Your task to perform on an android device: Open accessibility settings Image 0: 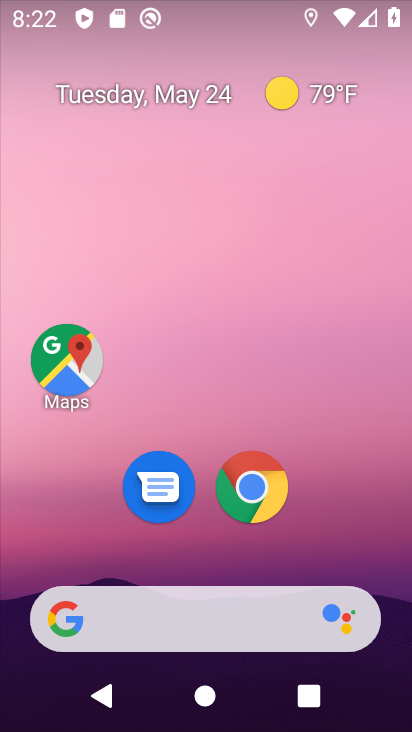
Step 0: drag from (302, 547) to (298, 115)
Your task to perform on an android device: Open accessibility settings Image 1: 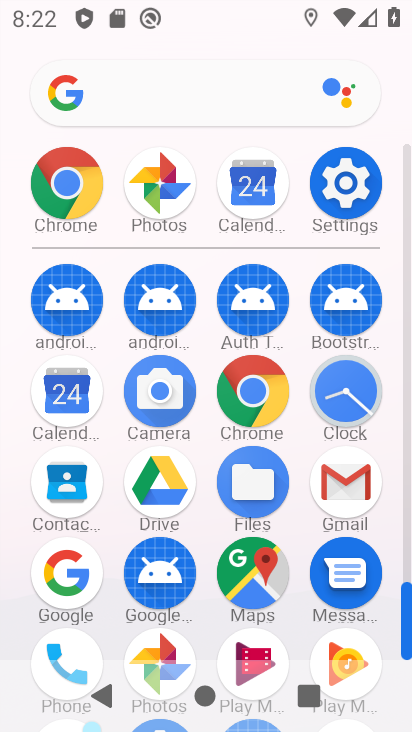
Step 1: click (333, 198)
Your task to perform on an android device: Open accessibility settings Image 2: 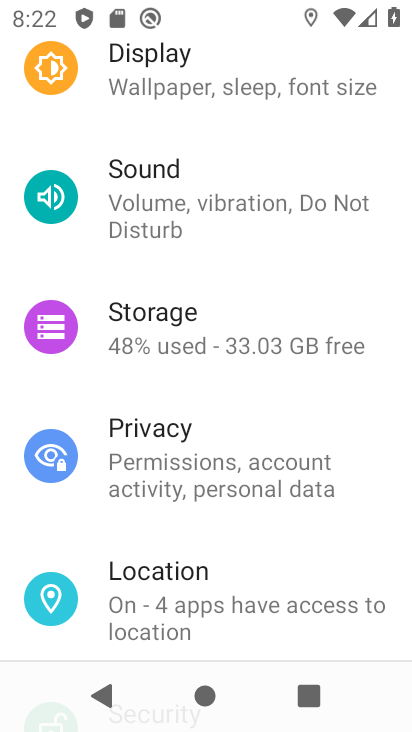
Step 2: drag from (315, 562) to (322, 195)
Your task to perform on an android device: Open accessibility settings Image 3: 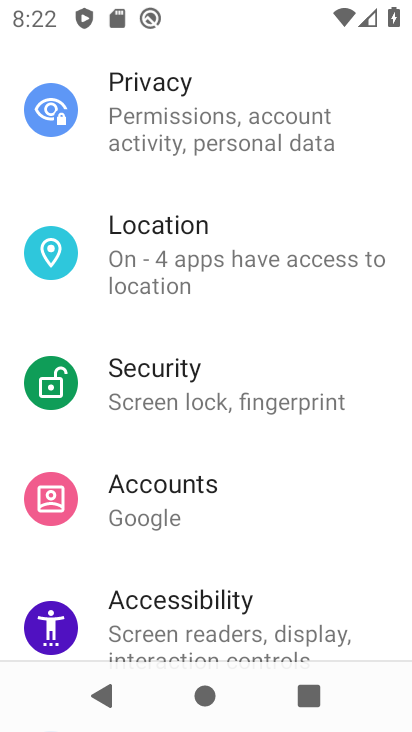
Step 3: click (172, 630)
Your task to perform on an android device: Open accessibility settings Image 4: 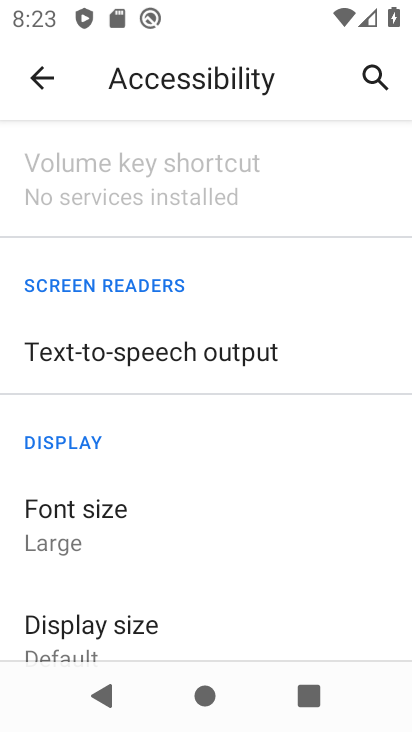
Step 4: task complete